Your task to perform on an android device: Is it going to rain today? Image 0: 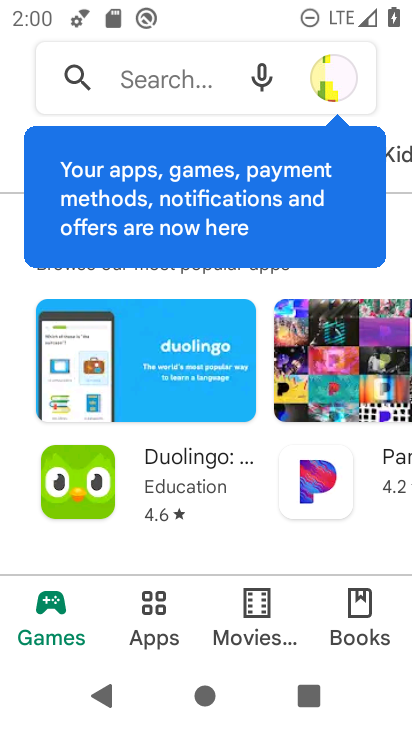
Step 0: press home button
Your task to perform on an android device: Is it going to rain today? Image 1: 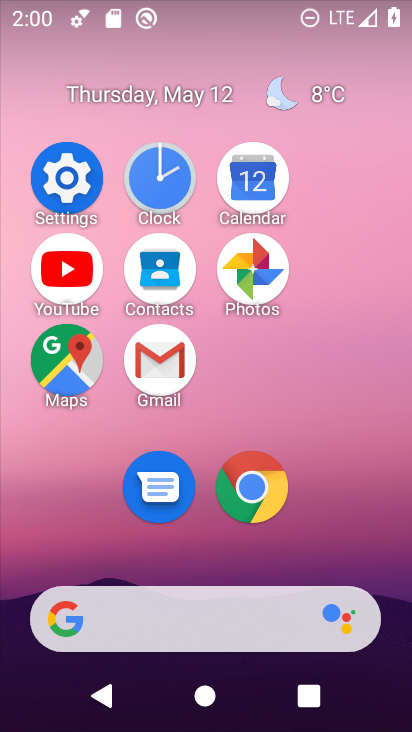
Step 1: drag from (327, 551) to (307, 118)
Your task to perform on an android device: Is it going to rain today? Image 2: 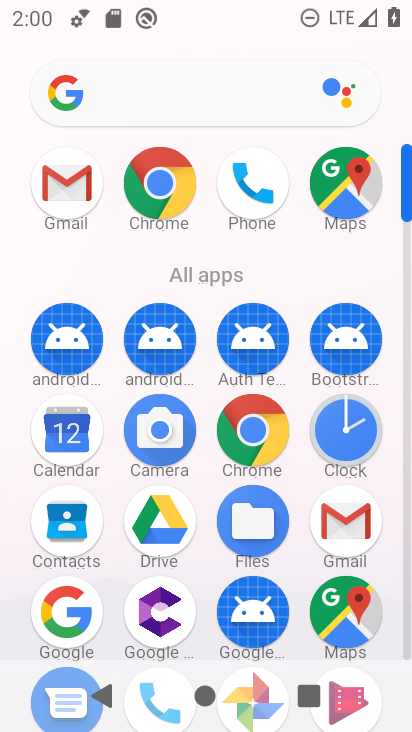
Step 2: drag from (77, 601) to (237, 338)
Your task to perform on an android device: Is it going to rain today? Image 3: 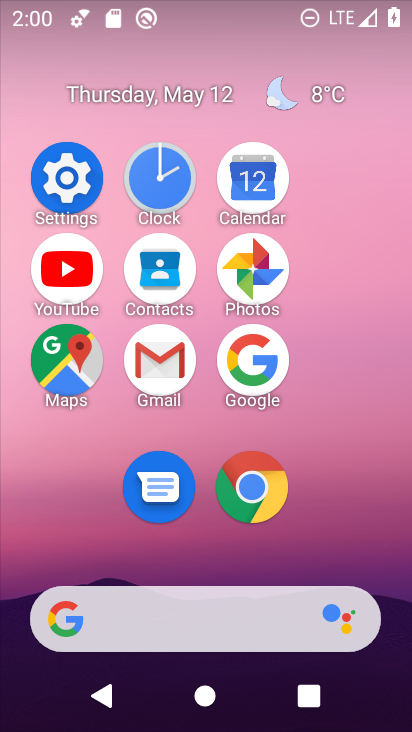
Step 3: click (255, 369)
Your task to perform on an android device: Is it going to rain today? Image 4: 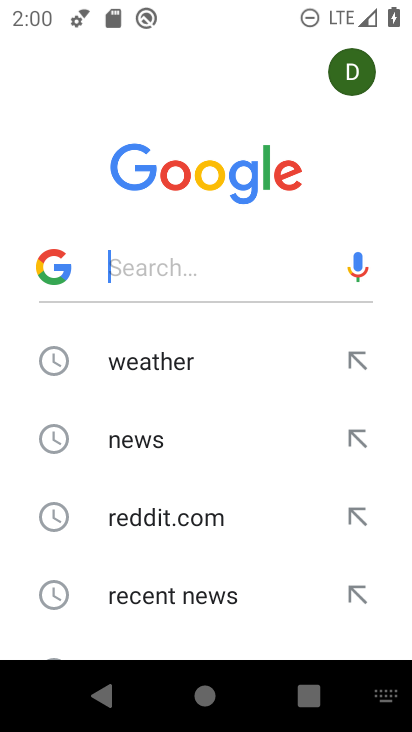
Step 4: click (154, 379)
Your task to perform on an android device: Is it going to rain today? Image 5: 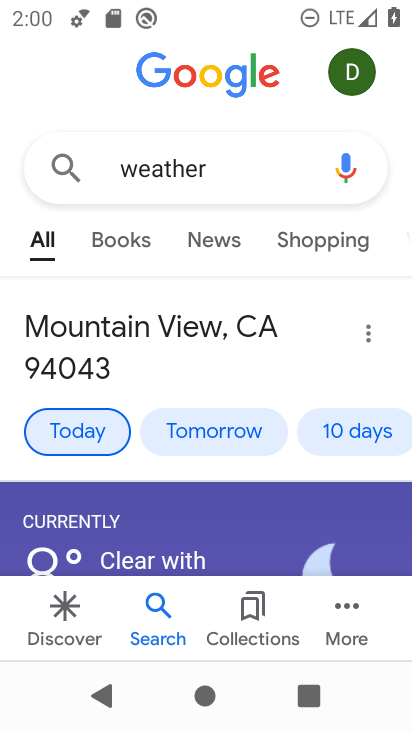
Step 5: task complete